Your task to perform on an android device: Go to sound settings Image 0: 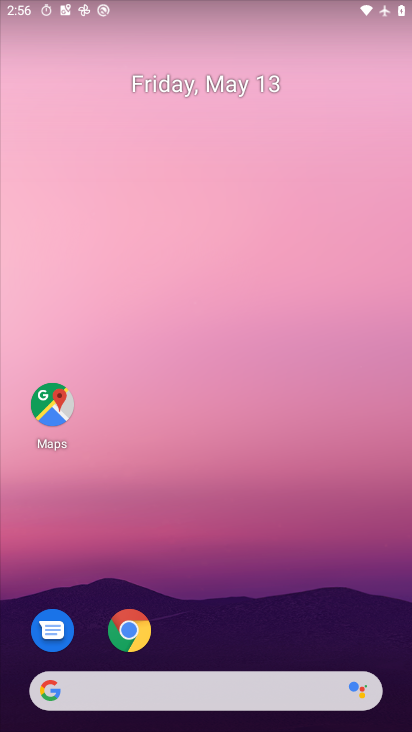
Step 0: drag from (179, 655) to (316, 205)
Your task to perform on an android device: Go to sound settings Image 1: 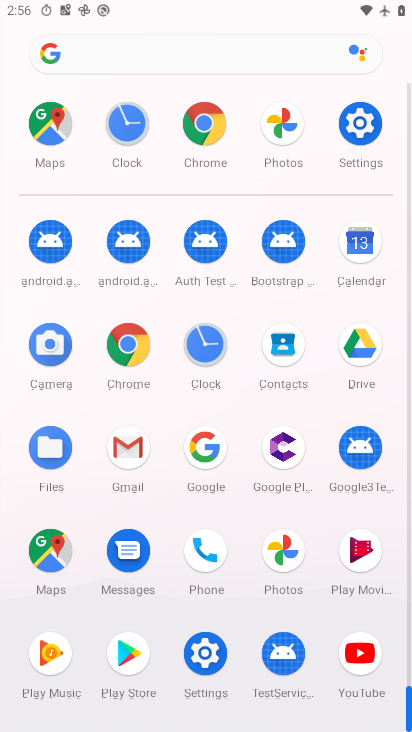
Step 1: click (206, 669)
Your task to perform on an android device: Go to sound settings Image 2: 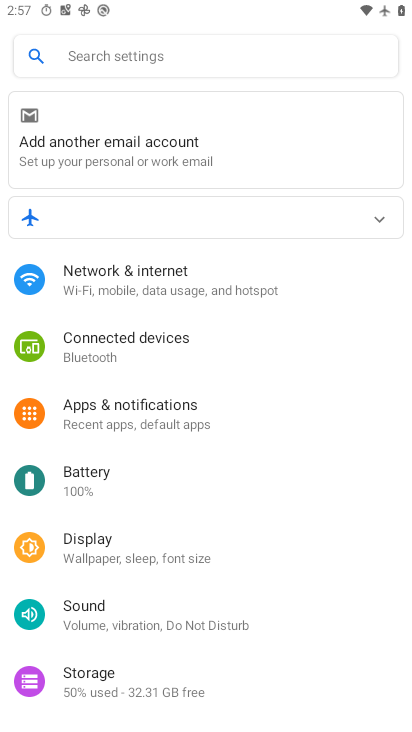
Step 2: click (140, 618)
Your task to perform on an android device: Go to sound settings Image 3: 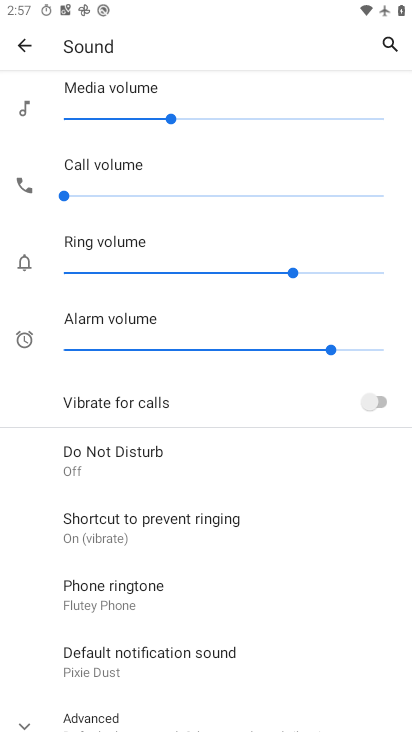
Step 3: task complete